Your task to perform on an android device: Open eBay Image 0: 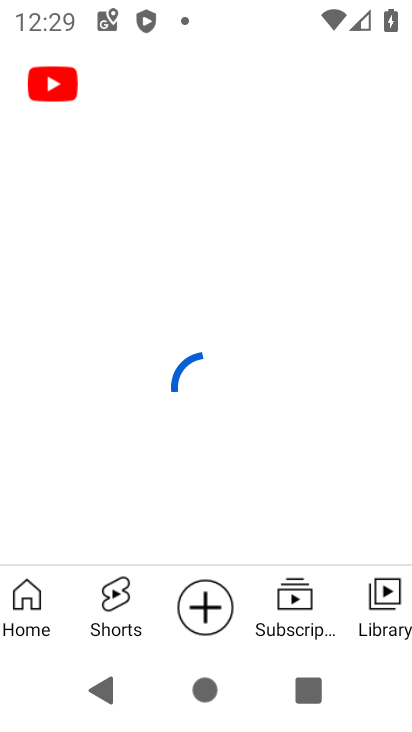
Step 0: drag from (310, 518) to (363, 41)
Your task to perform on an android device: Open eBay Image 1: 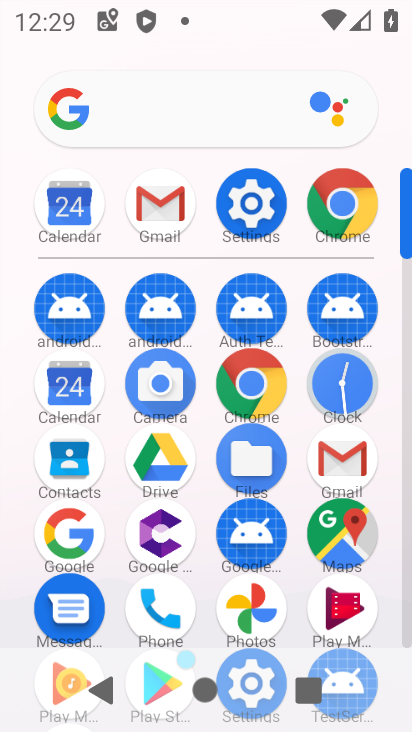
Step 1: click (356, 193)
Your task to perform on an android device: Open eBay Image 2: 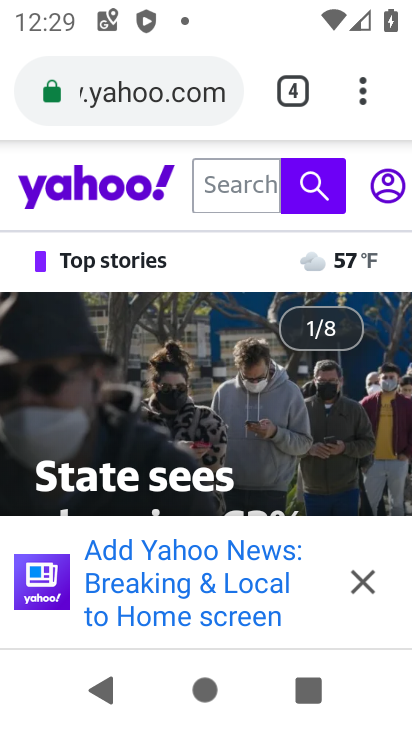
Step 2: click (345, 209)
Your task to perform on an android device: Open eBay Image 3: 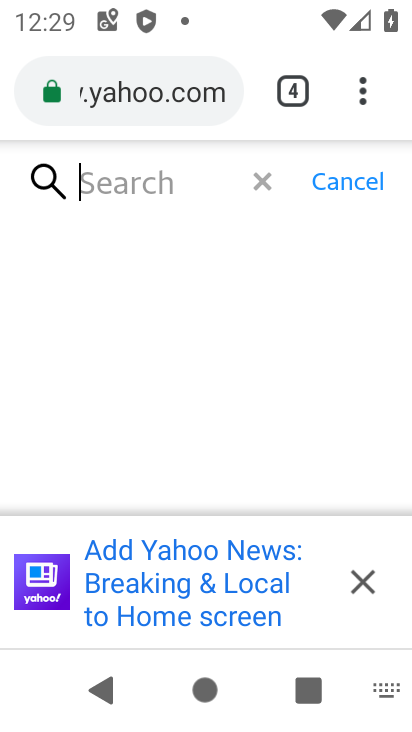
Step 3: click (156, 87)
Your task to perform on an android device: Open eBay Image 4: 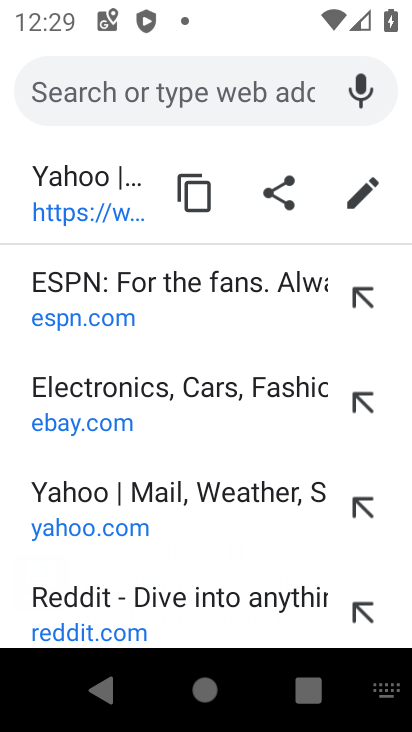
Step 4: drag from (124, 502) to (156, 259)
Your task to perform on an android device: Open eBay Image 5: 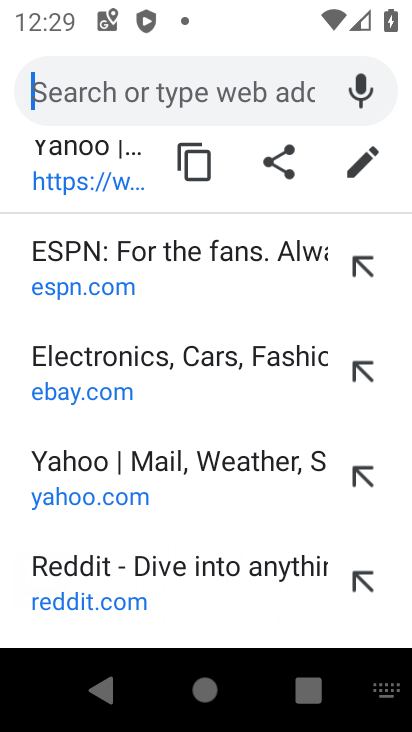
Step 5: drag from (152, 553) to (176, 180)
Your task to perform on an android device: Open eBay Image 6: 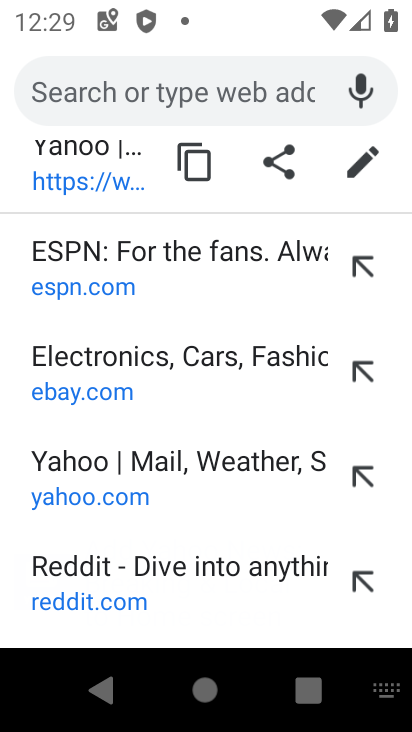
Step 6: type "ebay"
Your task to perform on an android device: Open eBay Image 7: 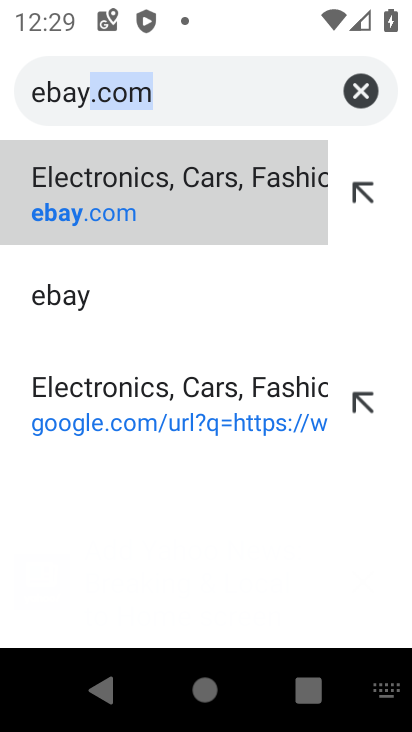
Step 7: click (127, 207)
Your task to perform on an android device: Open eBay Image 8: 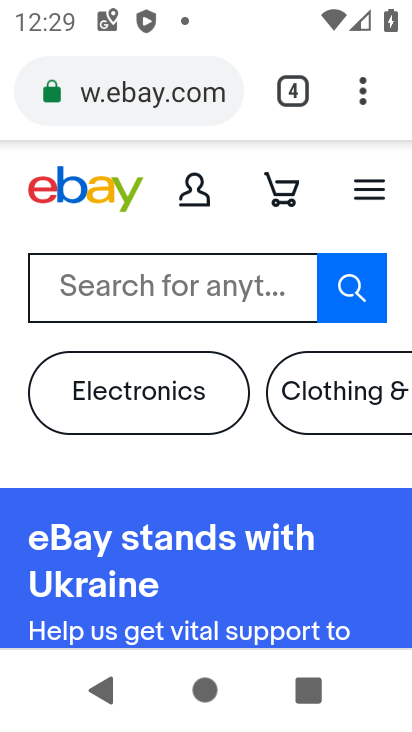
Step 8: task complete